Your task to perform on an android device: Search for Italian restaurants on Maps Image 0: 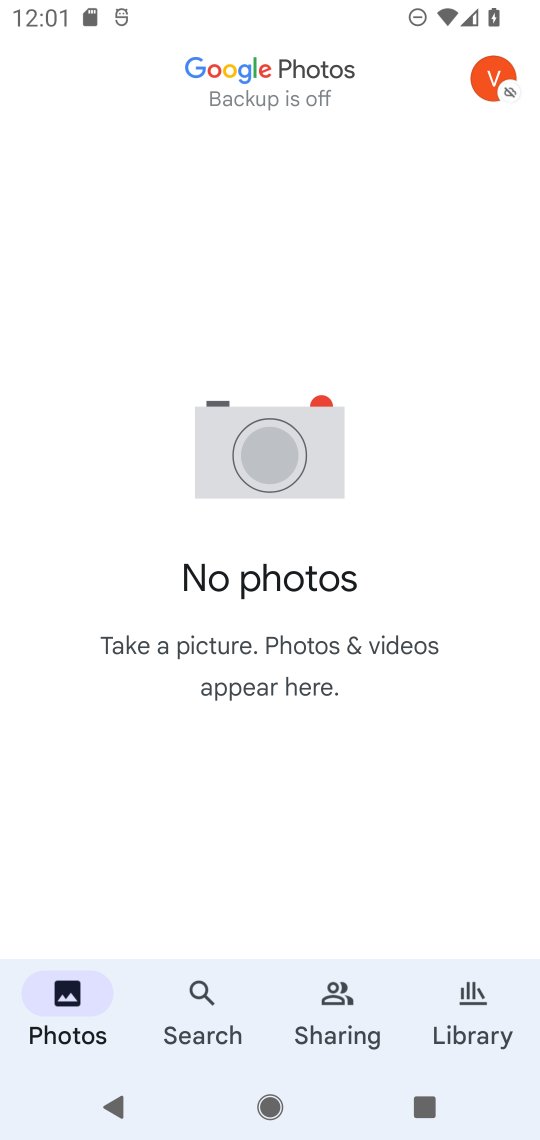
Step 0: press home button
Your task to perform on an android device: Search for Italian restaurants on Maps Image 1: 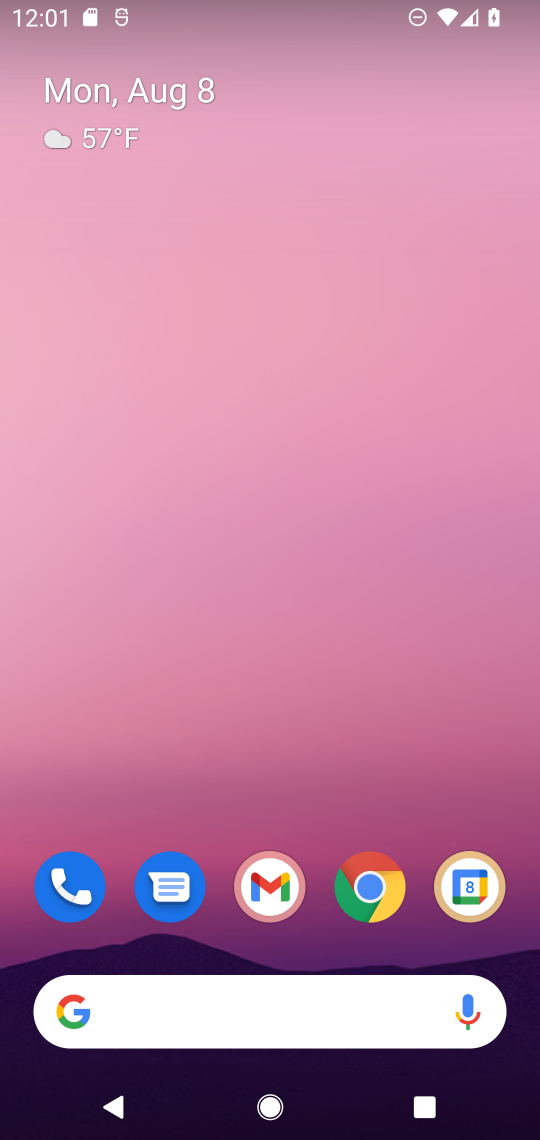
Step 1: drag from (364, 788) to (271, 160)
Your task to perform on an android device: Search for Italian restaurants on Maps Image 2: 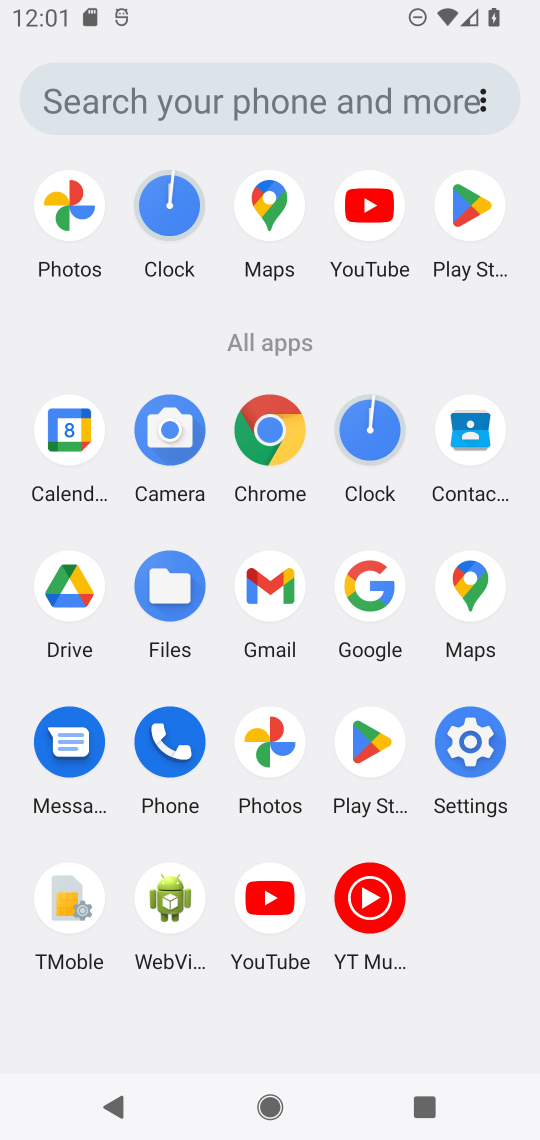
Step 2: click (268, 199)
Your task to perform on an android device: Search for Italian restaurants on Maps Image 3: 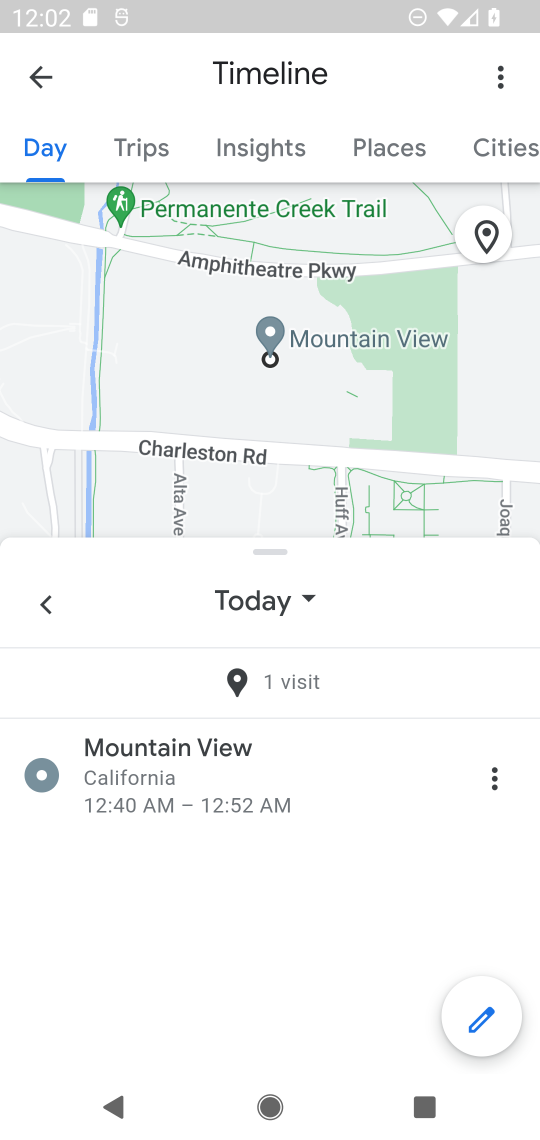
Step 3: click (35, 65)
Your task to perform on an android device: Search for Italian restaurants on Maps Image 4: 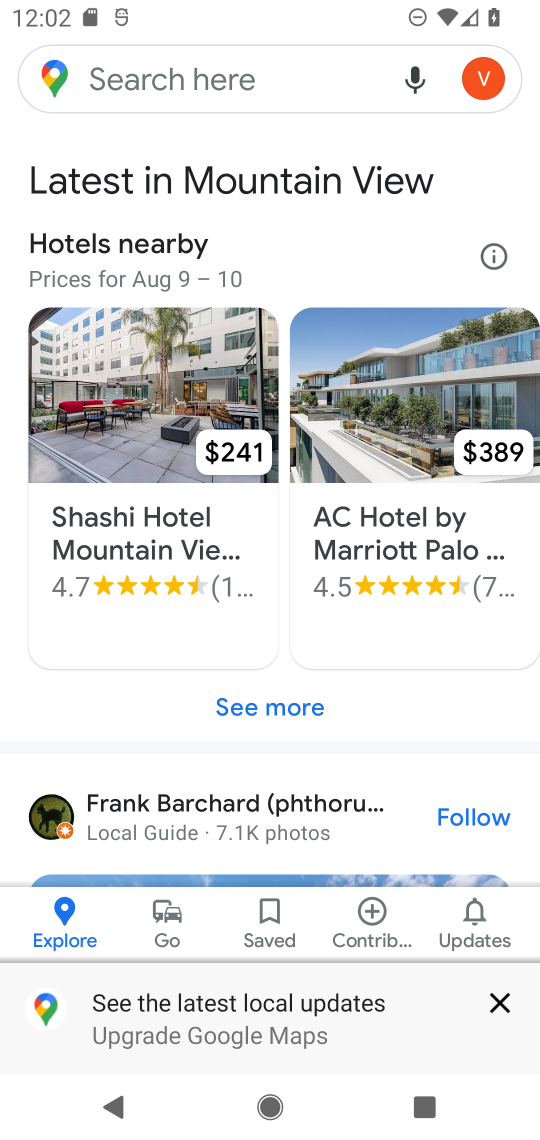
Step 4: click (159, 73)
Your task to perform on an android device: Search for Italian restaurants on Maps Image 5: 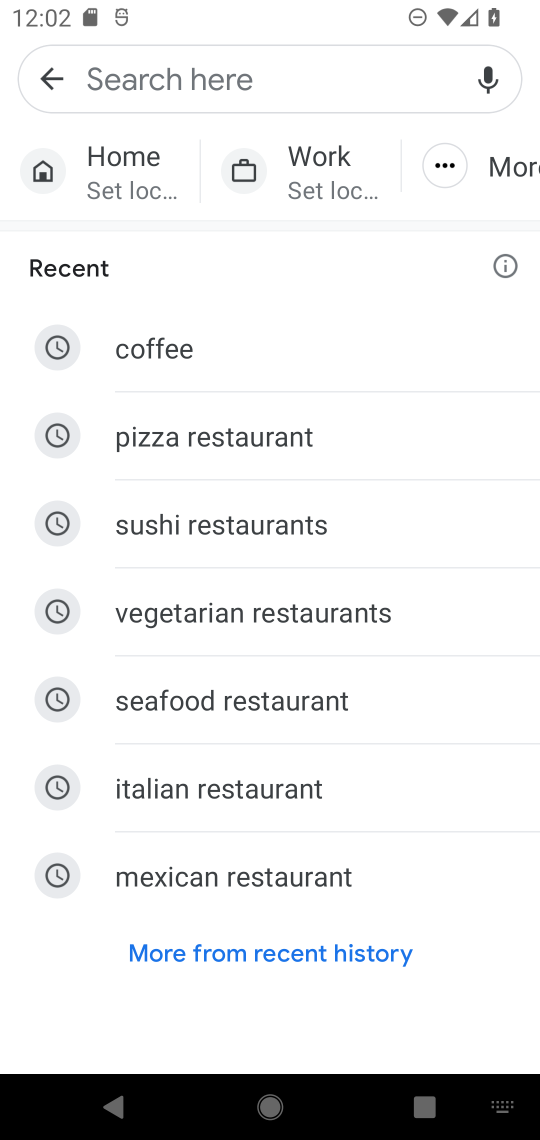
Step 5: click (211, 782)
Your task to perform on an android device: Search for Italian restaurants on Maps Image 6: 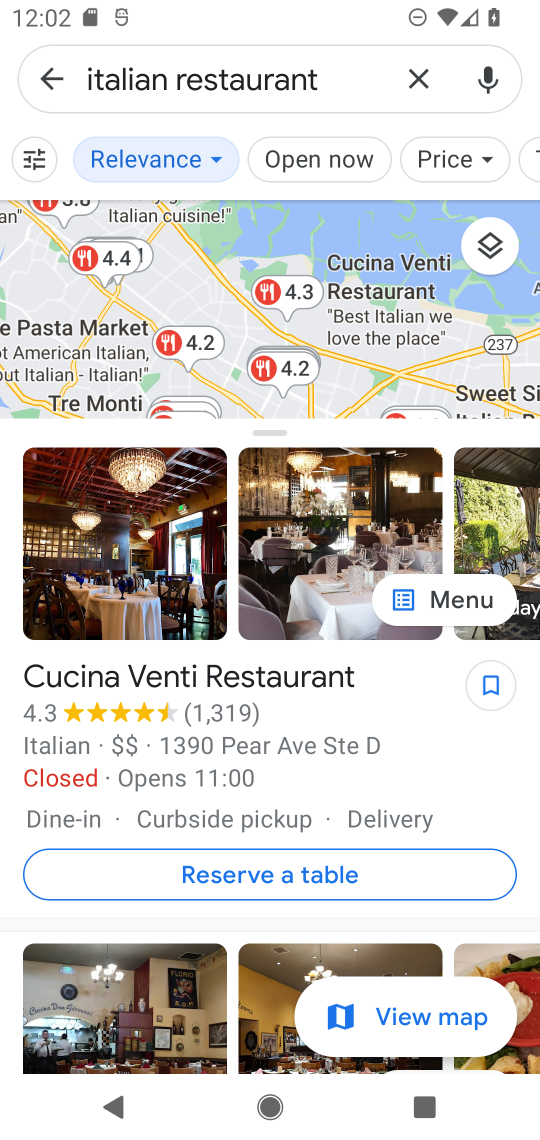
Step 6: task complete